Your task to perform on an android device: check out phone information Image 0: 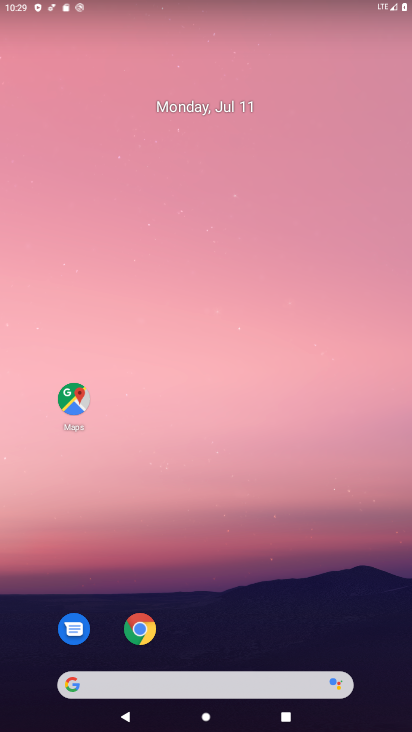
Step 0: drag from (201, 662) to (264, 168)
Your task to perform on an android device: check out phone information Image 1: 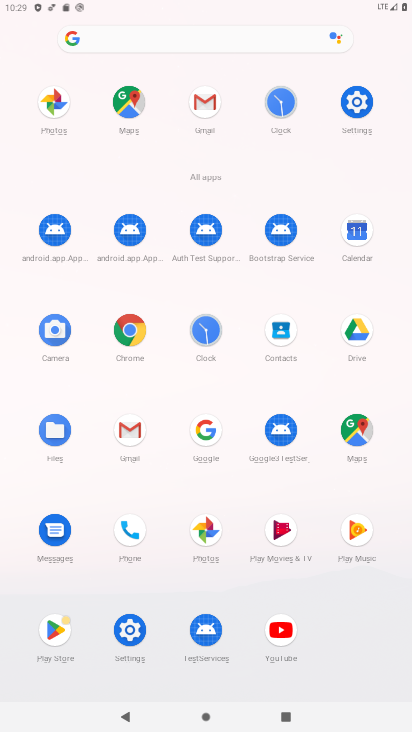
Step 1: click (133, 640)
Your task to perform on an android device: check out phone information Image 2: 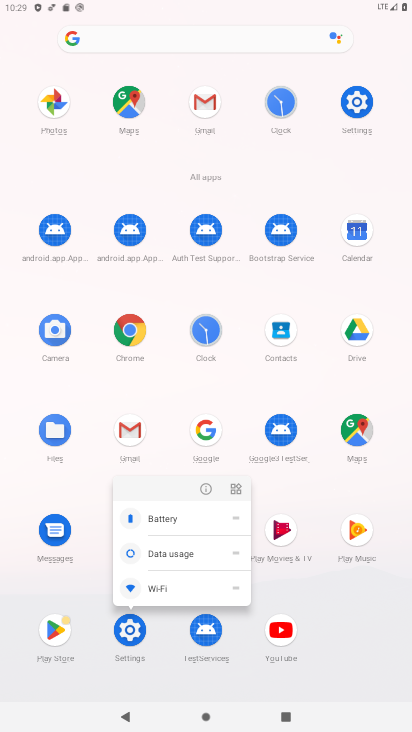
Step 2: click (134, 638)
Your task to perform on an android device: check out phone information Image 3: 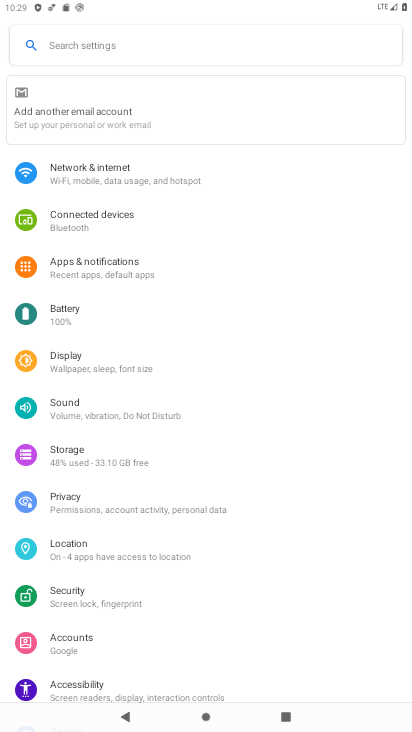
Step 3: drag from (166, 532) to (281, 85)
Your task to perform on an android device: check out phone information Image 4: 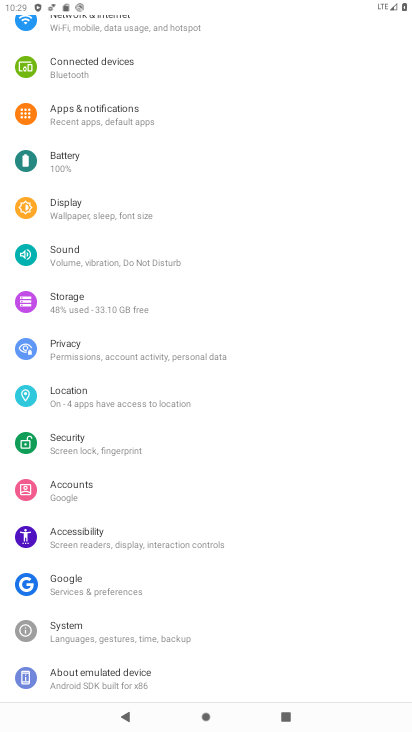
Step 4: click (157, 684)
Your task to perform on an android device: check out phone information Image 5: 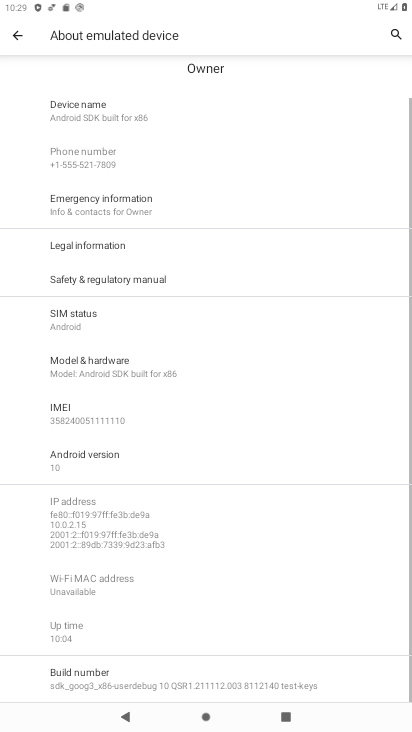
Step 5: task complete